Your task to perform on an android device: Show me recent news Image 0: 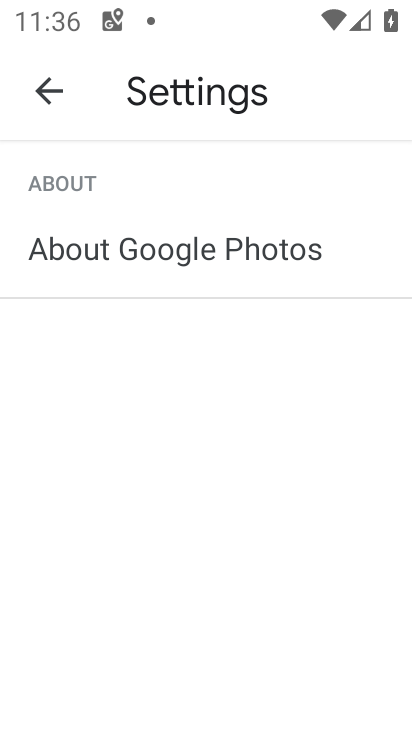
Step 0: press home button
Your task to perform on an android device: Show me recent news Image 1: 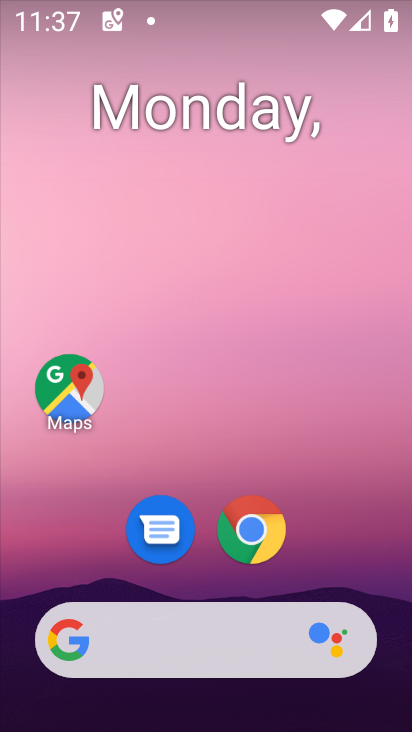
Step 1: click (191, 633)
Your task to perform on an android device: Show me recent news Image 2: 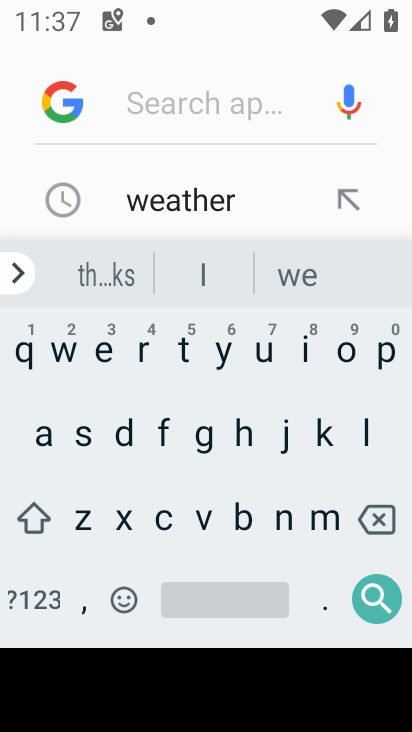
Step 2: click (140, 356)
Your task to perform on an android device: Show me recent news Image 3: 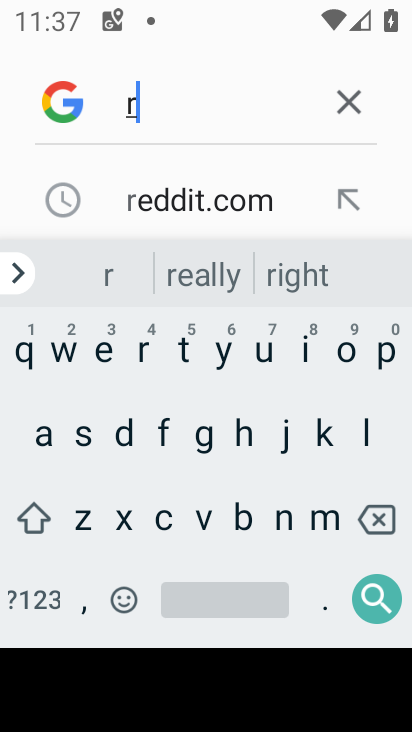
Step 3: click (111, 351)
Your task to perform on an android device: Show me recent news Image 4: 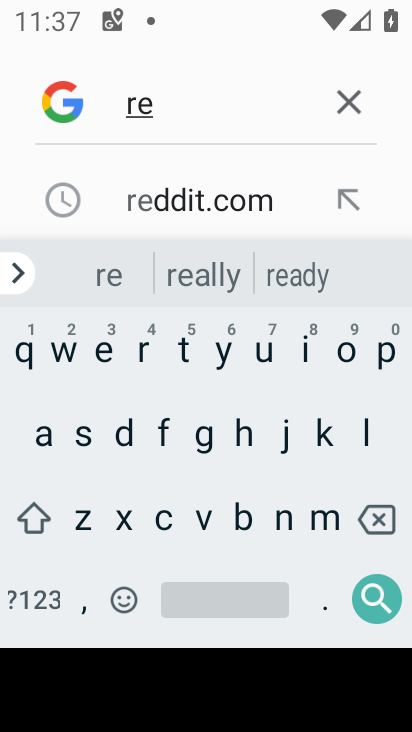
Step 4: click (166, 517)
Your task to perform on an android device: Show me recent news Image 5: 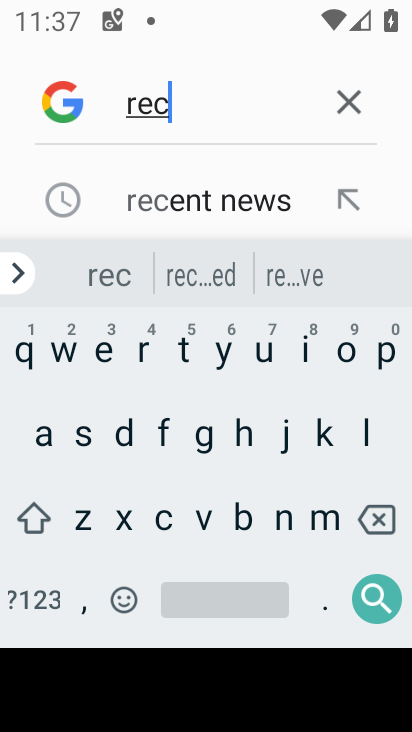
Step 5: click (220, 187)
Your task to perform on an android device: Show me recent news Image 6: 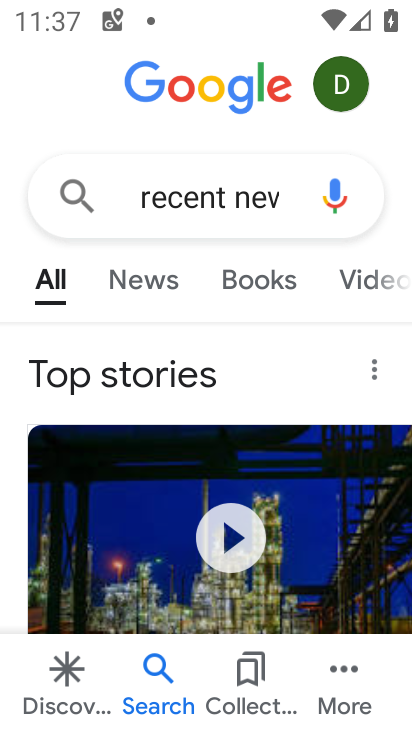
Step 6: task complete